Your task to perform on an android device: add a label to a message in the gmail app Image 0: 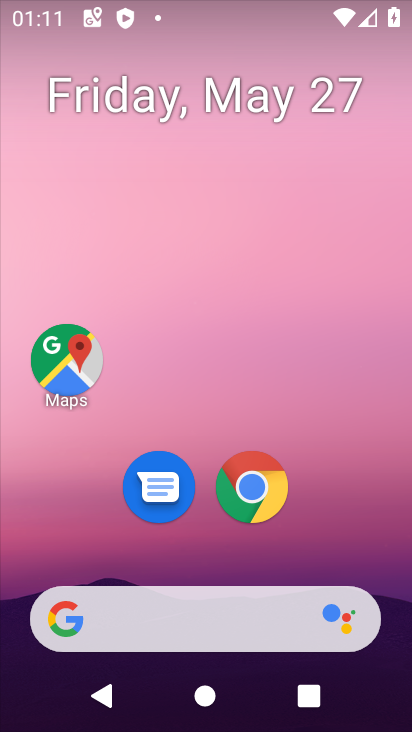
Step 0: drag from (154, 723) to (236, 123)
Your task to perform on an android device: add a label to a message in the gmail app Image 1: 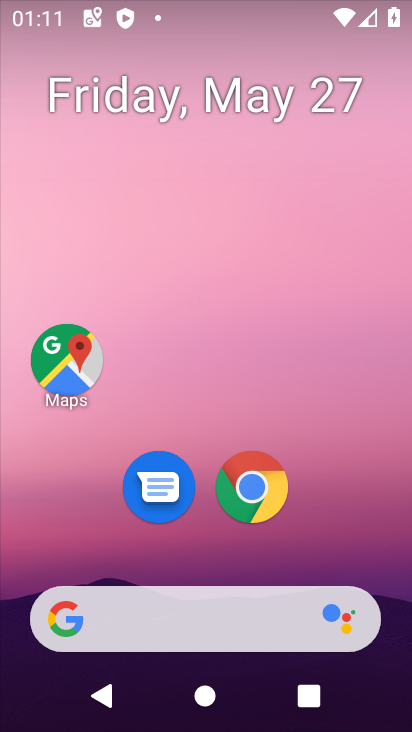
Step 1: drag from (149, 725) to (219, 11)
Your task to perform on an android device: add a label to a message in the gmail app Image 2: 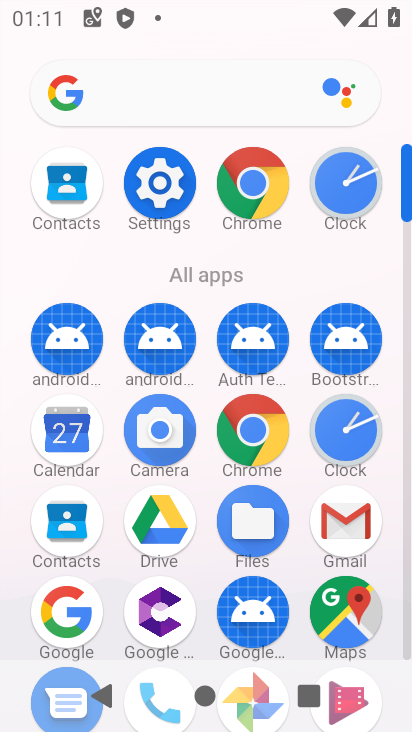
Step 2: click (348, 525)
Your task to perform on an android device: add a label to a message in the gmail app Image 3: 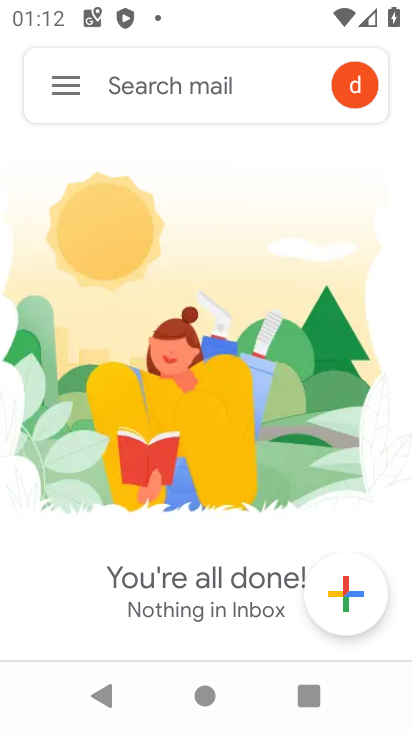
Step 3: click (81, 85)
Your task to perform on an android device: add a label to a message in the gmail app Image 4: 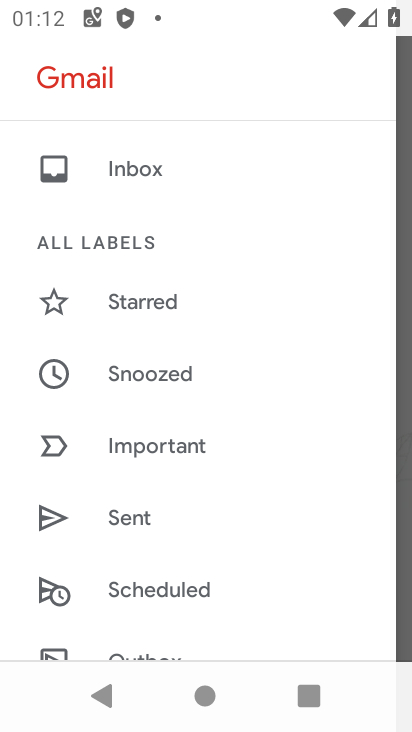
Step 4: click (162, 184)
Your task to perform on an android device: add a label to a message in the gmail app Image 5: 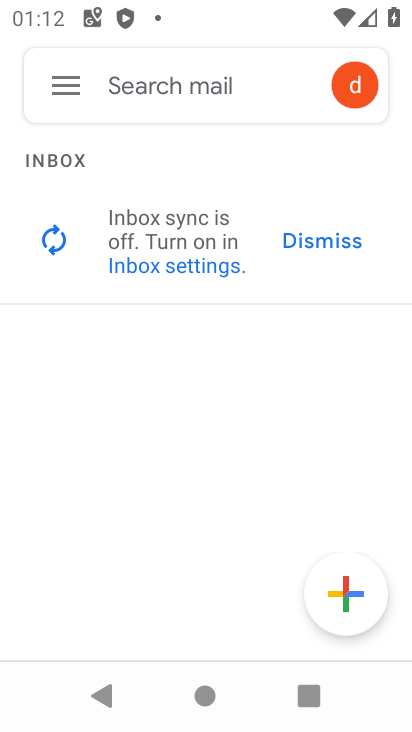
Step 5: click (66, 91)
Your task to perform on an android device: add a label to a message in the gmail app Image 6: 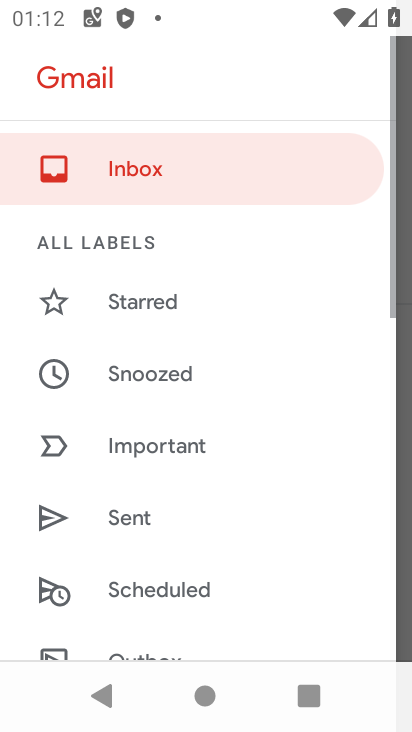
Step 6: drag from (246, 610) to (307, 4)
Your task to perform on an android device: add a label to a message in the gmail app Image 7: 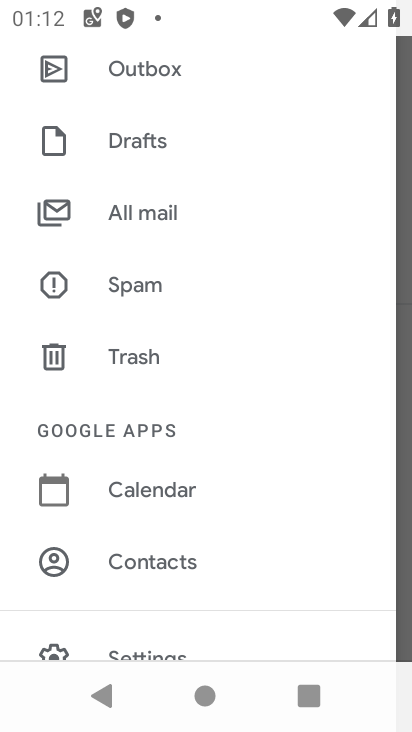
Step 7: click (165, 227)
Your task to perform on an android device: add a label to a message in the gmail app Image 8: 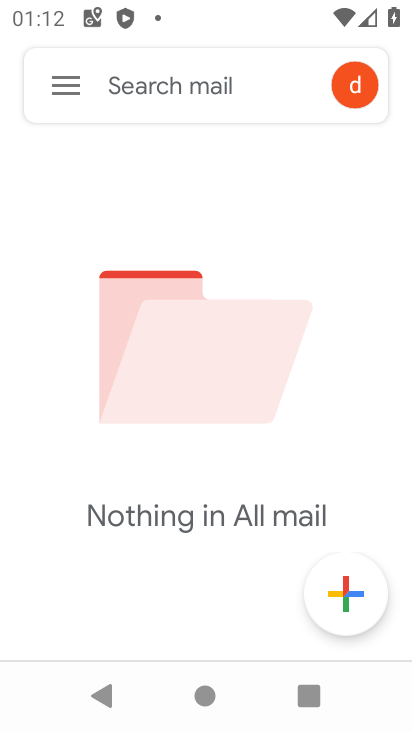
Step 8: task complete